Your task to perform on an android device: Open accessibility settings Image 0: 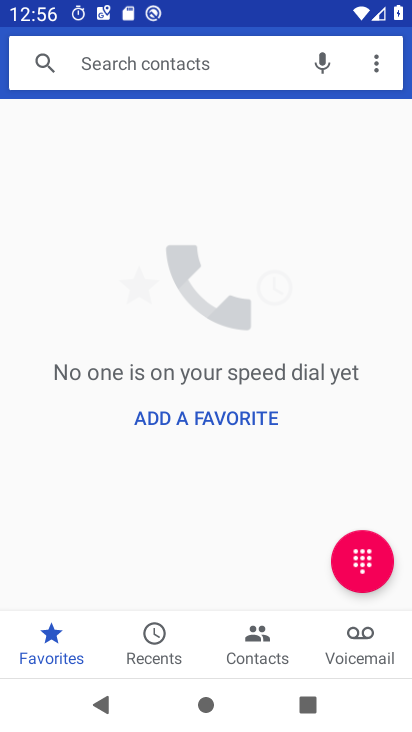
Step 0: press home button
Your task to perform on an android device: Open accessibility settings Image 1: 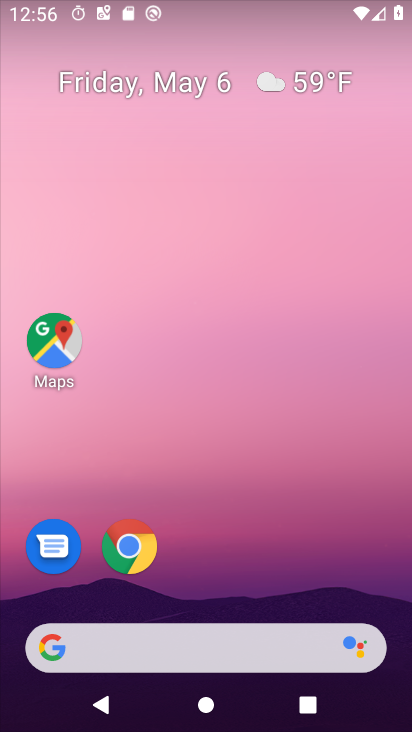
Step 1: drag from (237, 578) to (220, 157)
Your task to perform on an android device: Open accessibility settings Image 2: 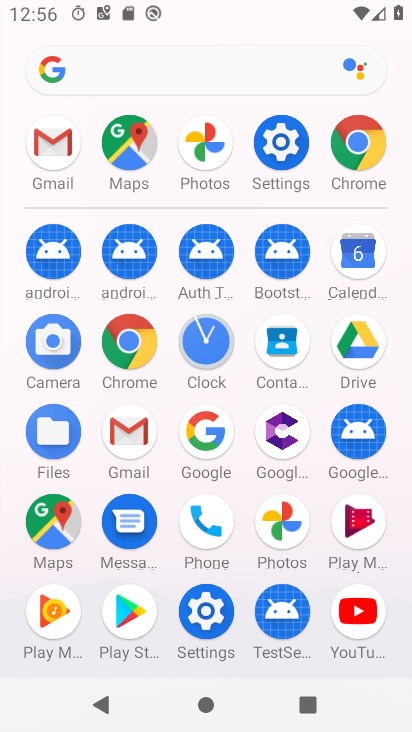
Step 2: click (282, 134)
Your task to perform on an android device: Open accessibility settings Image 3: 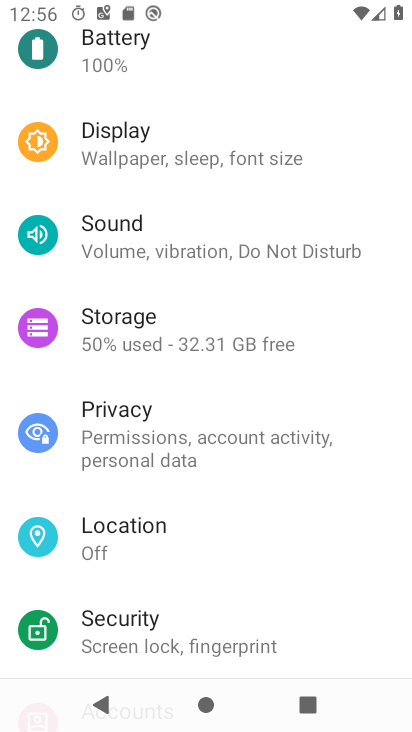
Step 3: drag from (291, 593) to (309, 113)
Your task to perform on an android device: Open accessibility settings Image 4: 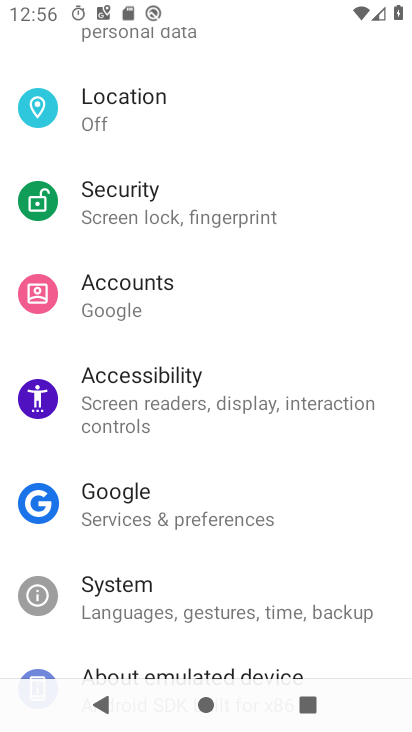
Step 4: click (191, 411)
Your task to perform on an android device: Open accessibility settings Image 5: 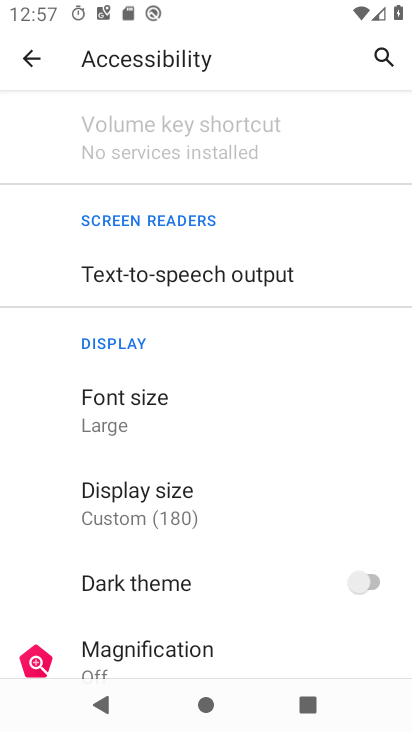
Step 5: task complete